Your task to perform on an android device: turn off notifications settings in the gmail app Image 0: 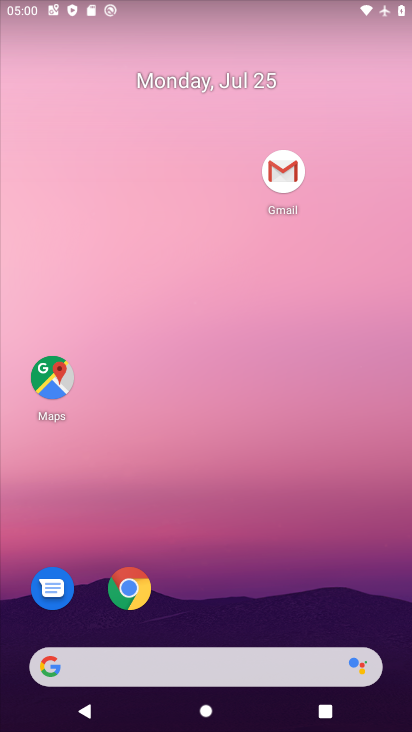
Step 0: drag from (334, 598) to (285, 84)
Your task to perform on an android device: turn off notifications settings in the gmail app Image 1: 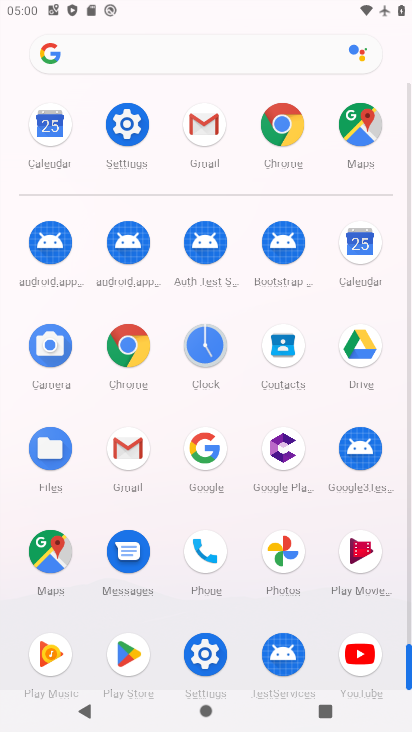
Step 1: click (131, 454)
Your task to perform on an android device: turn off notifications settings in the gmail app Image 2: 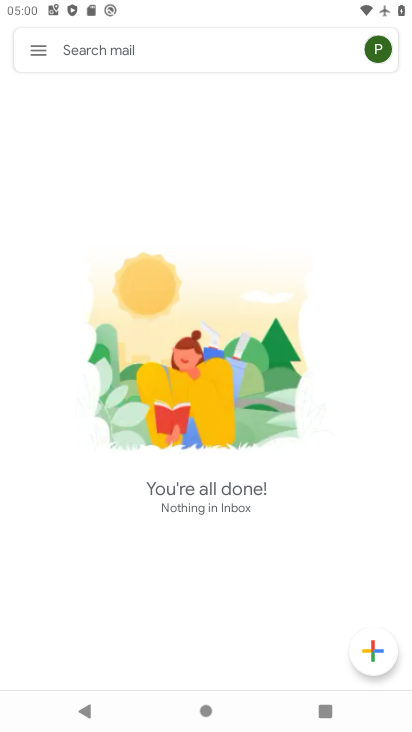
Step 2: click (35, 43)
Your task to perform on an android device: turn off notifications settings in the gmail app Image 3: 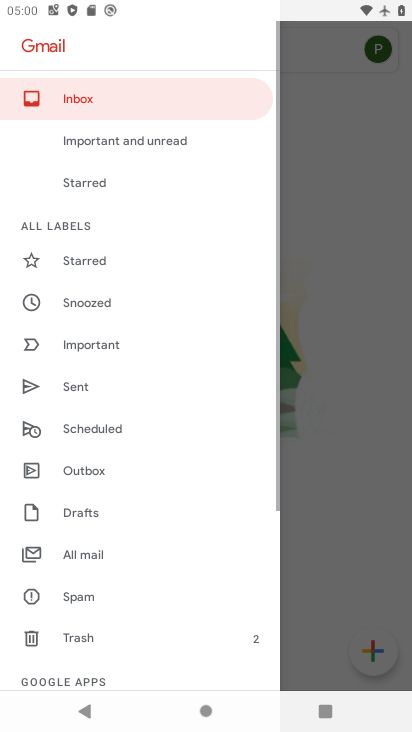
Step 3: drag from (95, 559) to (169, 120)
Your task to perform on an android device: turn off notifications settings in the gmail app Image 4: 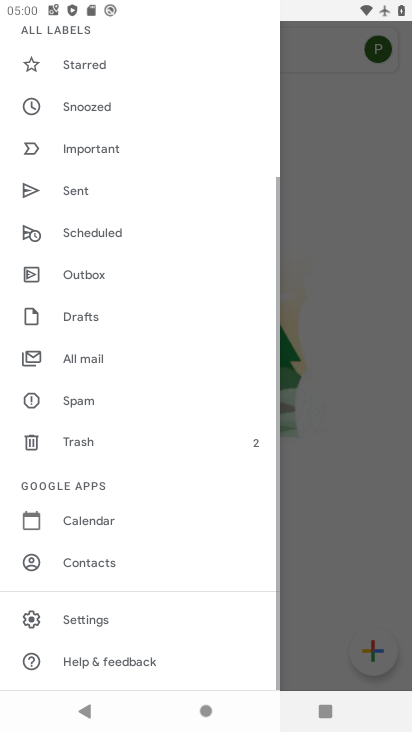
Step 4: click (95, 624)
Your task to perform on an android device: turn off notifications settings in the gmail app Image 5: 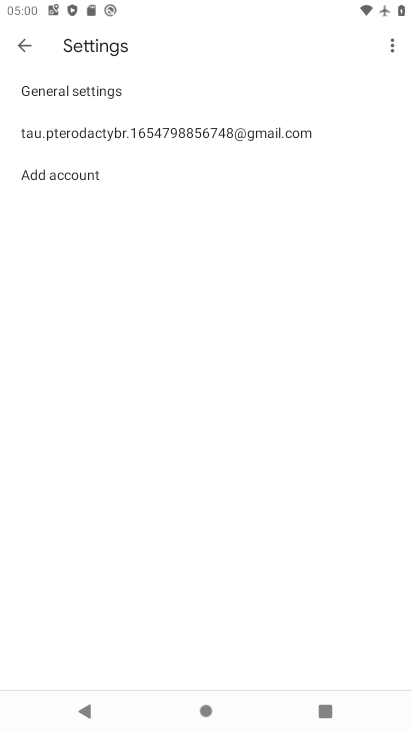
Step 5: click (165, 112)
Your task to perform on an android device: turn off notifications settings in the gmail app Image 6: 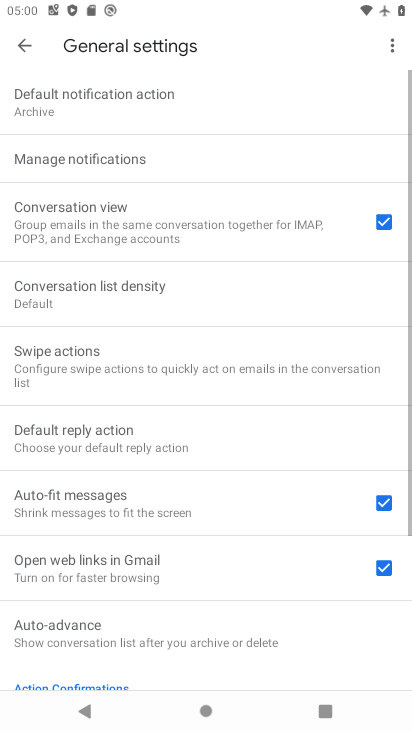
Step 6: click (11, 43)
Your task to perform on an android device: turn off notifications settings in the gmail app Image 7: 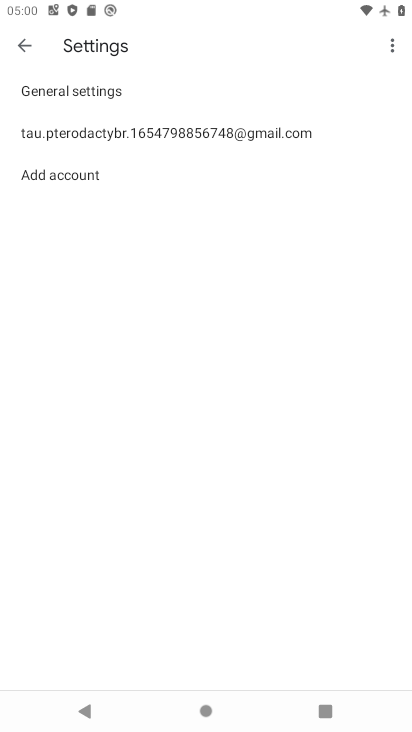
Step 7: click (123, 125)
Your task to perform on an android device: turn off notifications settings in the gmail app Image 8: 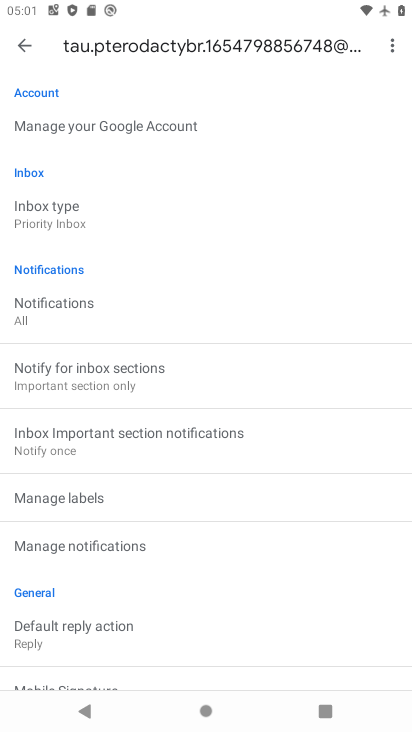
Step 8: click (106, 540)
Your task to perform on an android device: turn off notifications settings in the gmail app Image 9: 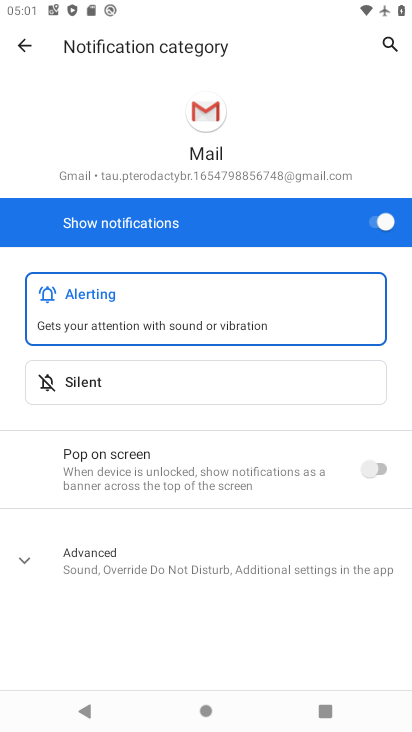
Step 9: click (394, 215)
Your task to perform on an android device: turn off notifications settings in the gmail app Image 10: 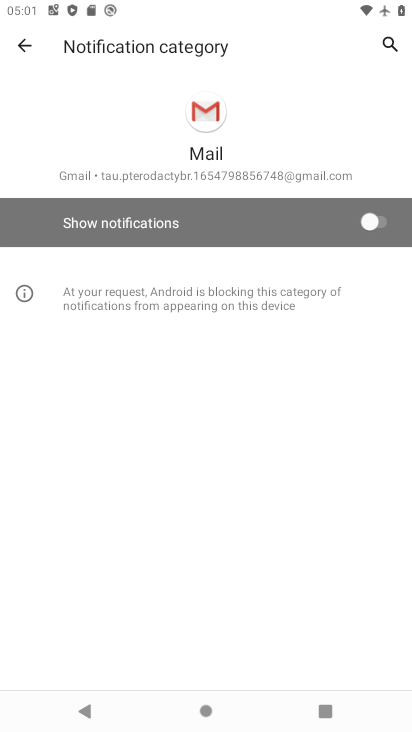
Step 10: task complete